Your task to perform on an android device: What is the news today? Image 0: 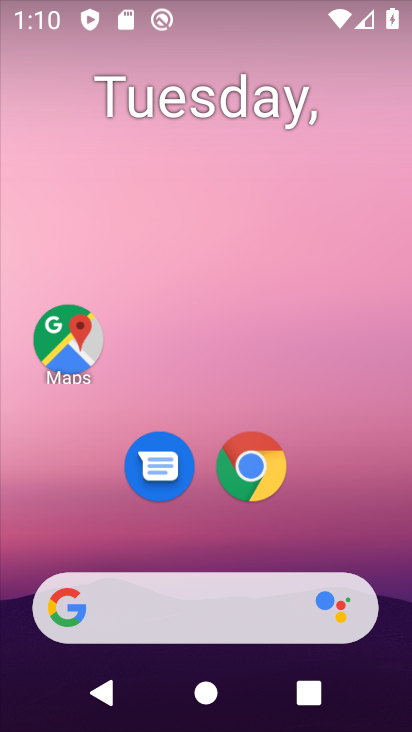
Step 0: drag from (368, 522) to (294, 10)
Your task to perform on an android device: What is the news today? Image 1: 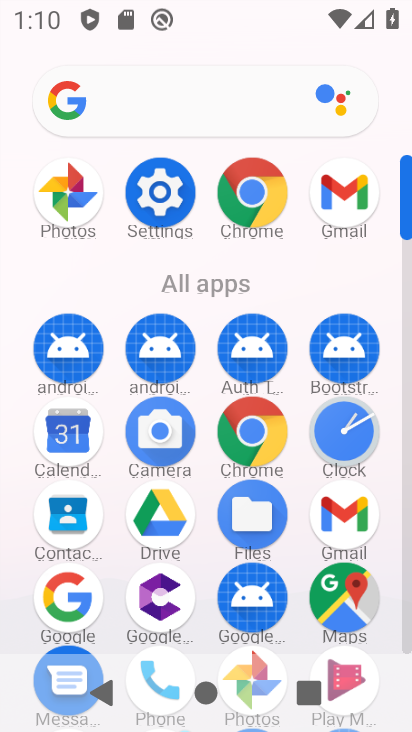
Step 1: click (137, 205)
Your task to perform on an android device: What is the news today? Image 2: 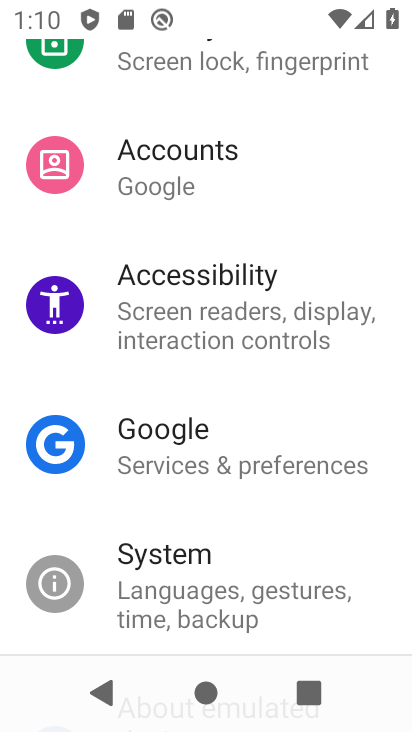
Step 2: press home button
Your task to perform on an android device: What is the news today? Image 3: 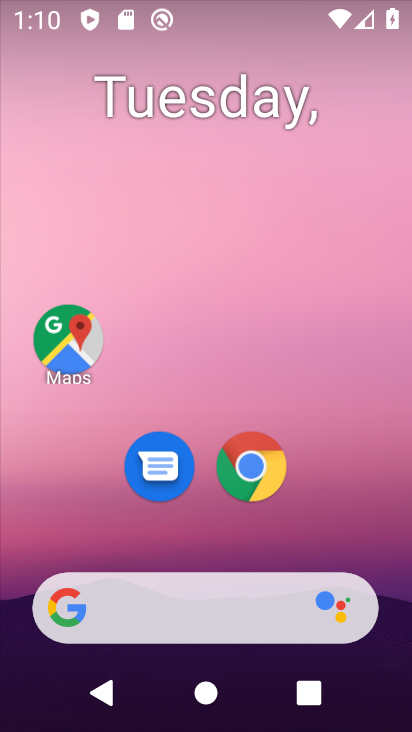
Step 3: click (207, 597)
Your task to perform on an android device: What is the news today? Image 4: 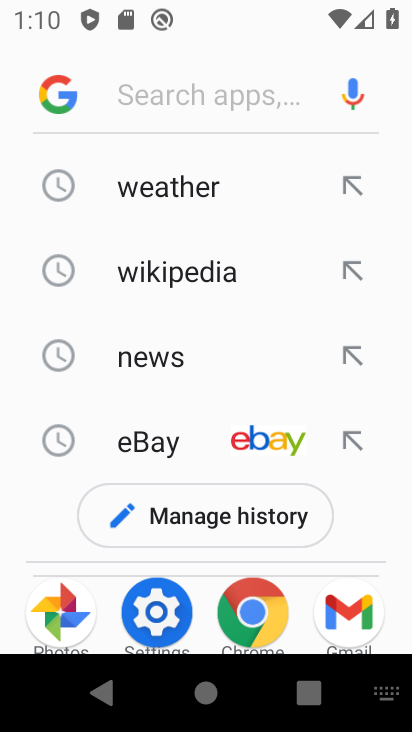
Step 4: click (150, 333)
Your task to perform on an android device: What is the news today? Image 5: 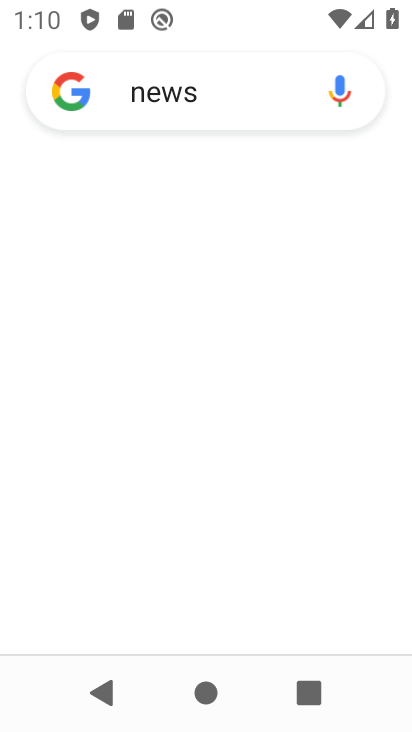
Step 5: task complete